Your task to perform on an android device: open app "Indeed Job Search" (install if not already installed) and go to login screen Image 0: 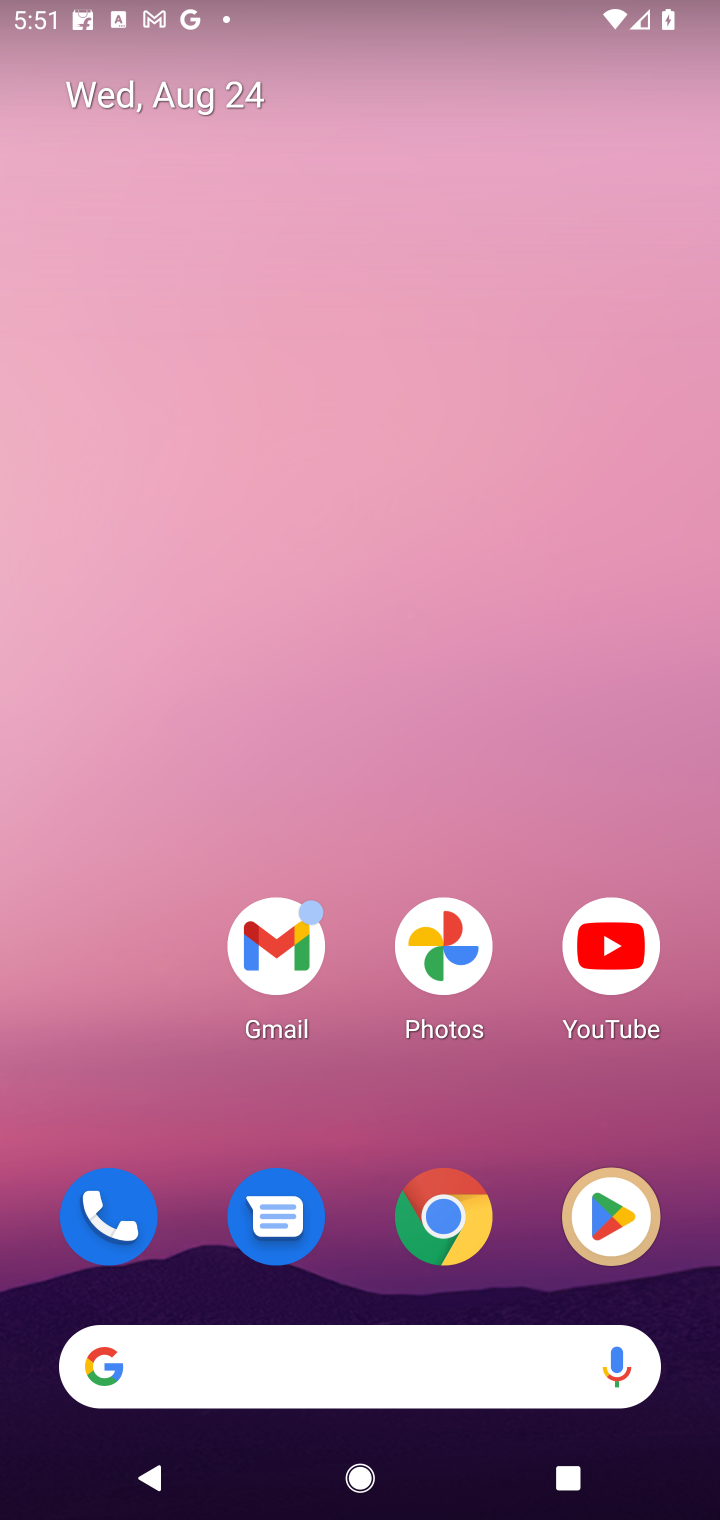
Step 0: click (600, 1217)
Your task to perform on an android device: open app "Indeed Job Search" (install if not already installed) and go to login screen Image 1: 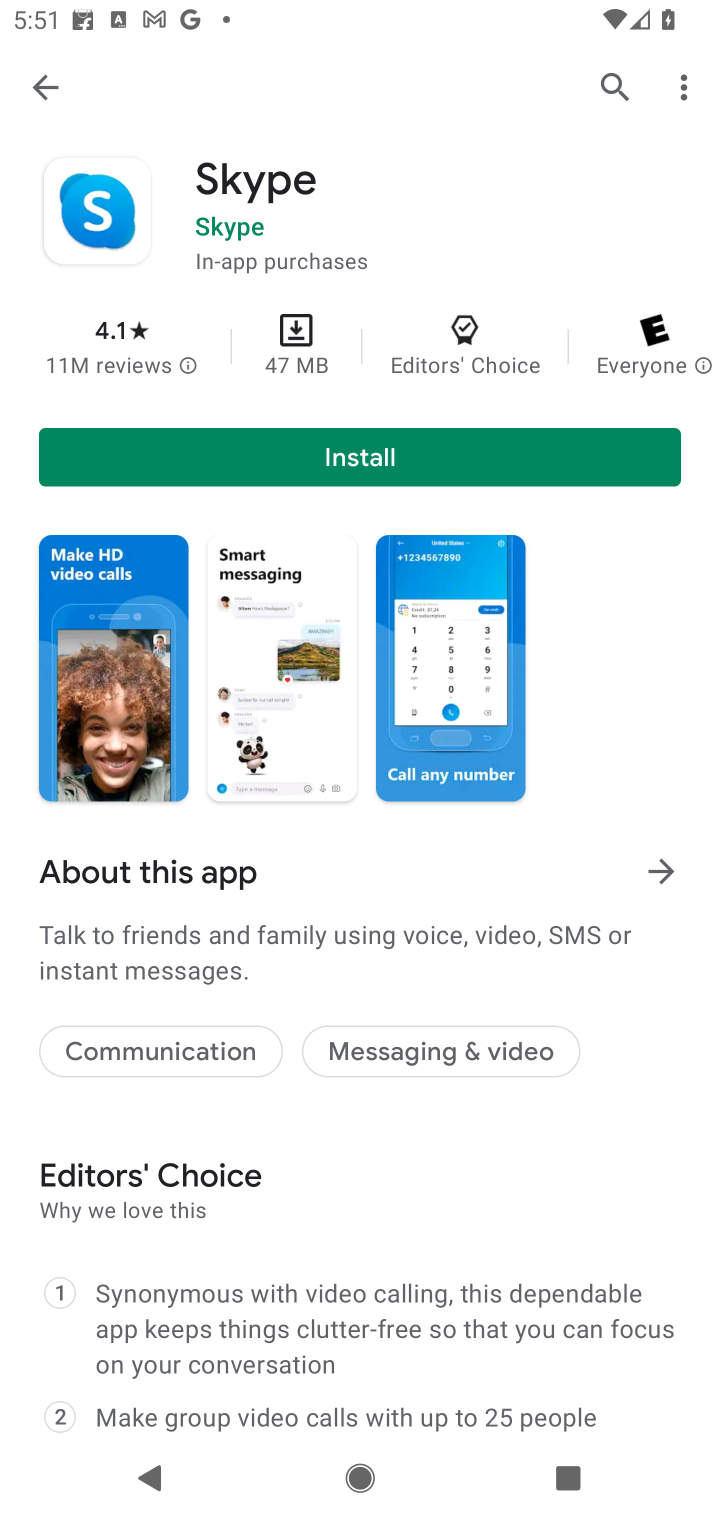
Step 1: click (627, 97)
Your task to perform on an android device: open app "Indeed Job Search" (install if not already installed) and go to login screen Image 2: 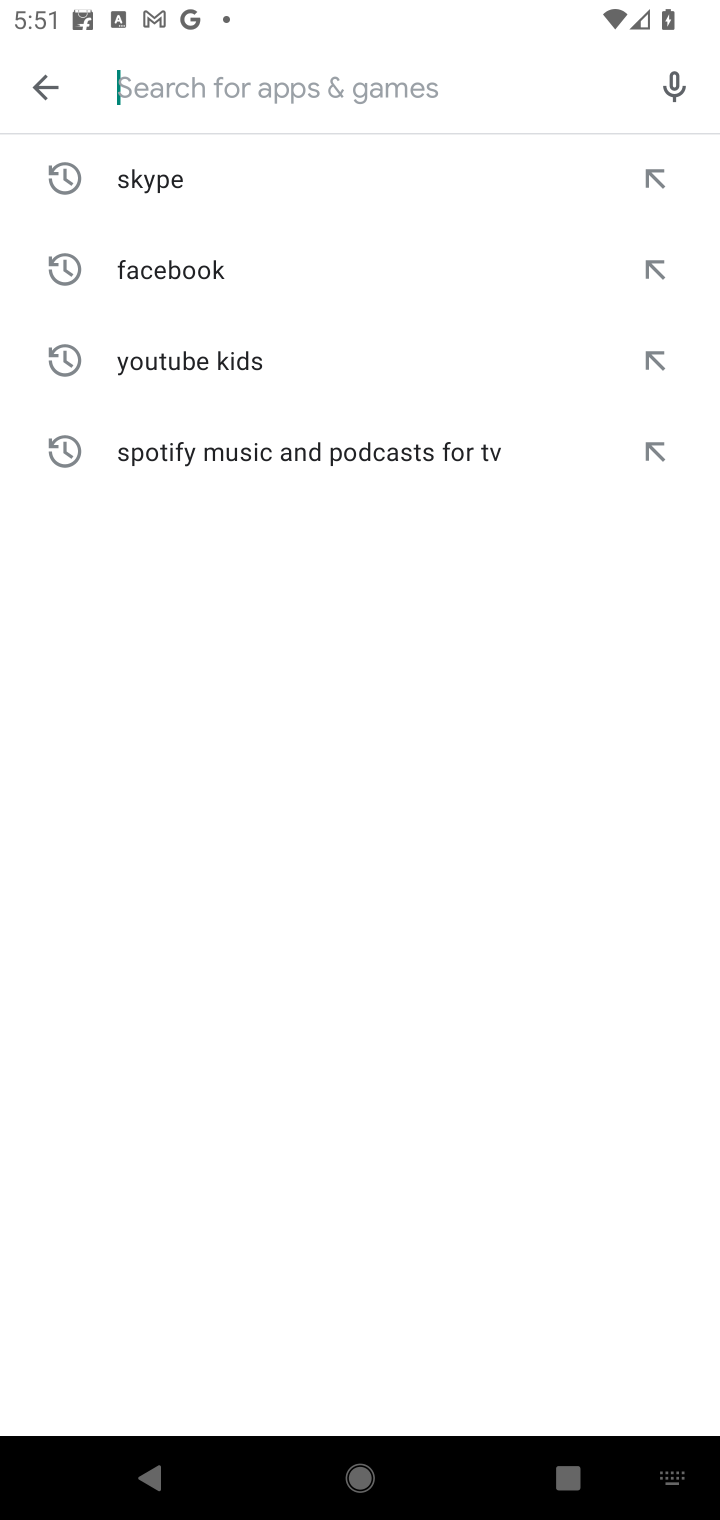
Step 2: type "Indeed Job Search"
Your task to perform on an android device: open app "Indeed Job Search" (install if not already installed) and go to login screen Image 3: 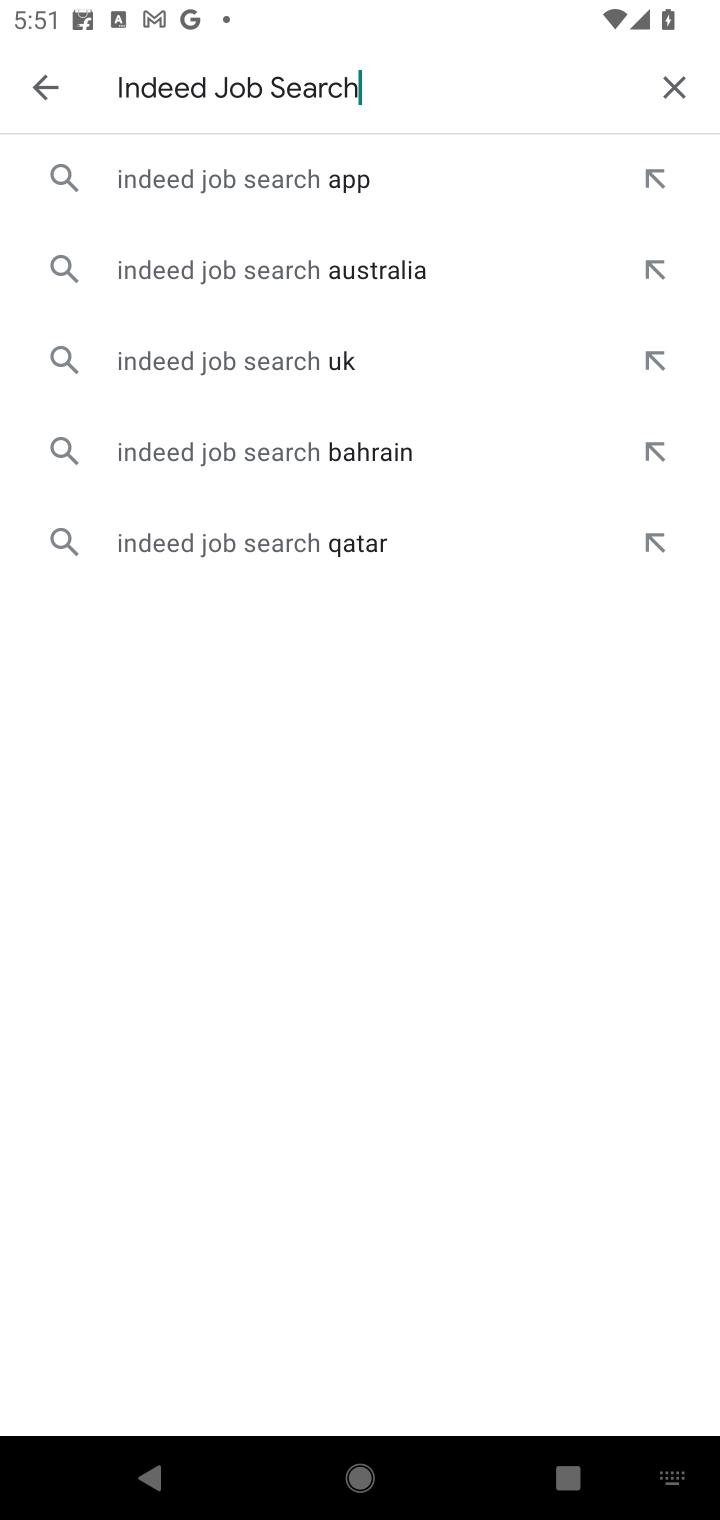
Step 3: click (257, 173)
Your task to perform on an android device: open app "Indeed Job Search" (install if not already installed) and go to login screen Image 4: 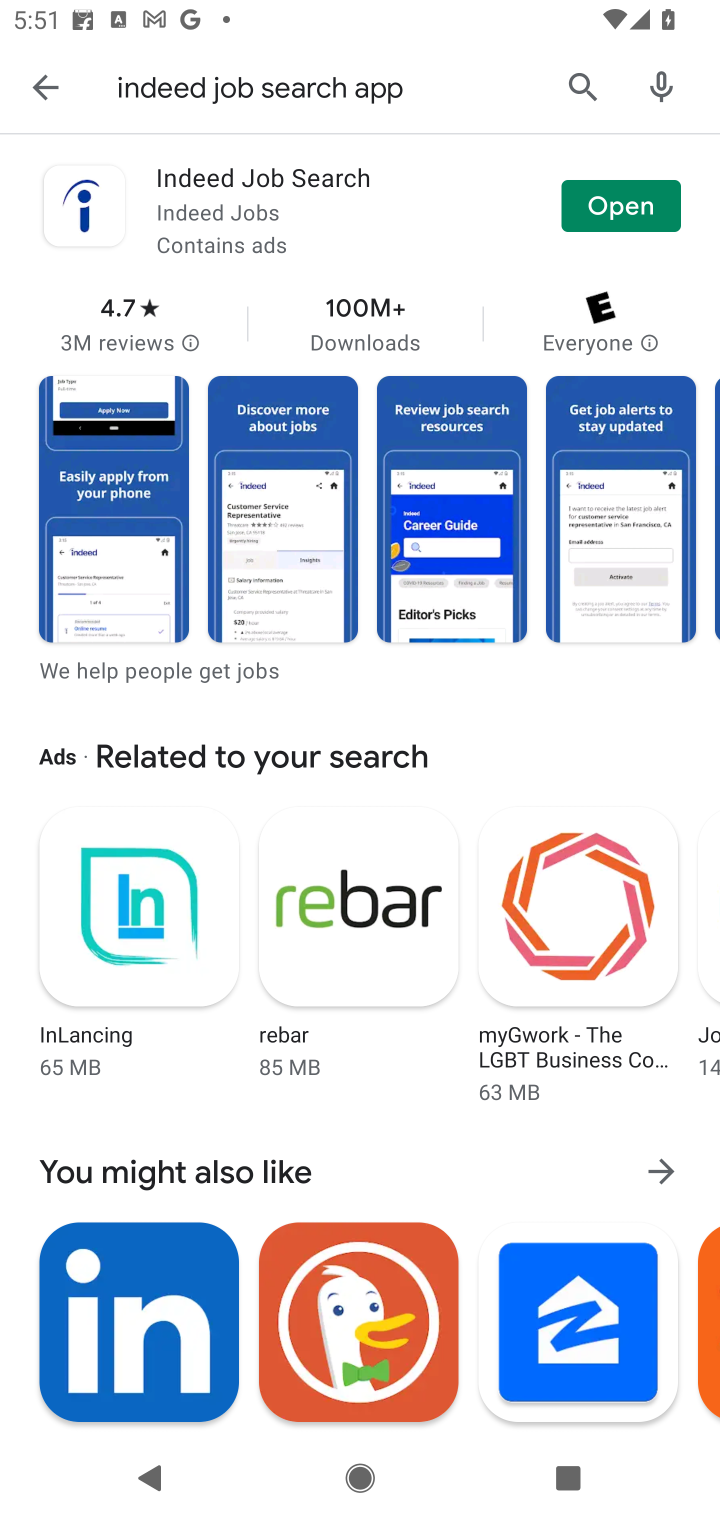
Step 4: click (633, 213)
Your task to perform on an android device: open app "Indeed Job Search" (install if not already installed) and go to login screen Image 5: 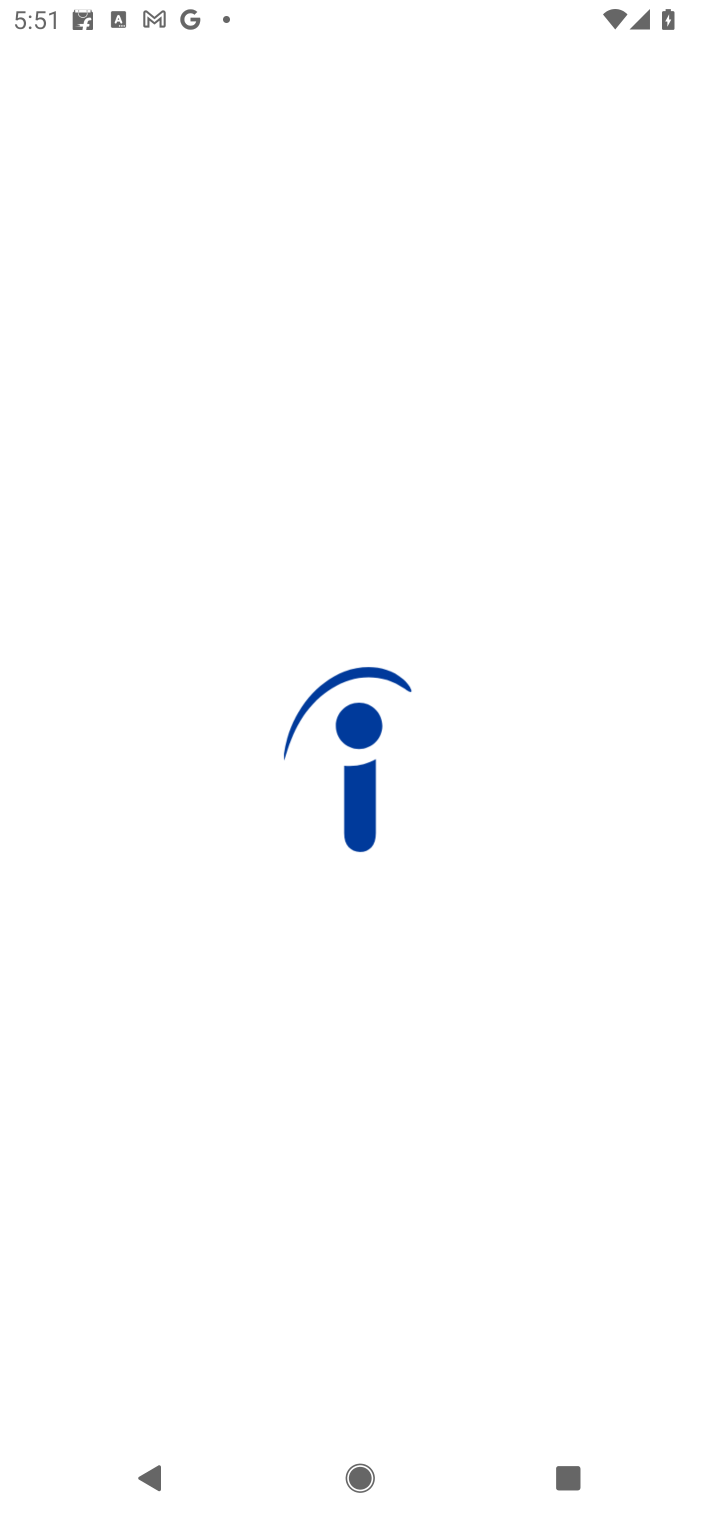
Step 5: task complete